Your task to perform on an android device: uninstall "Pinterest" Image 0: 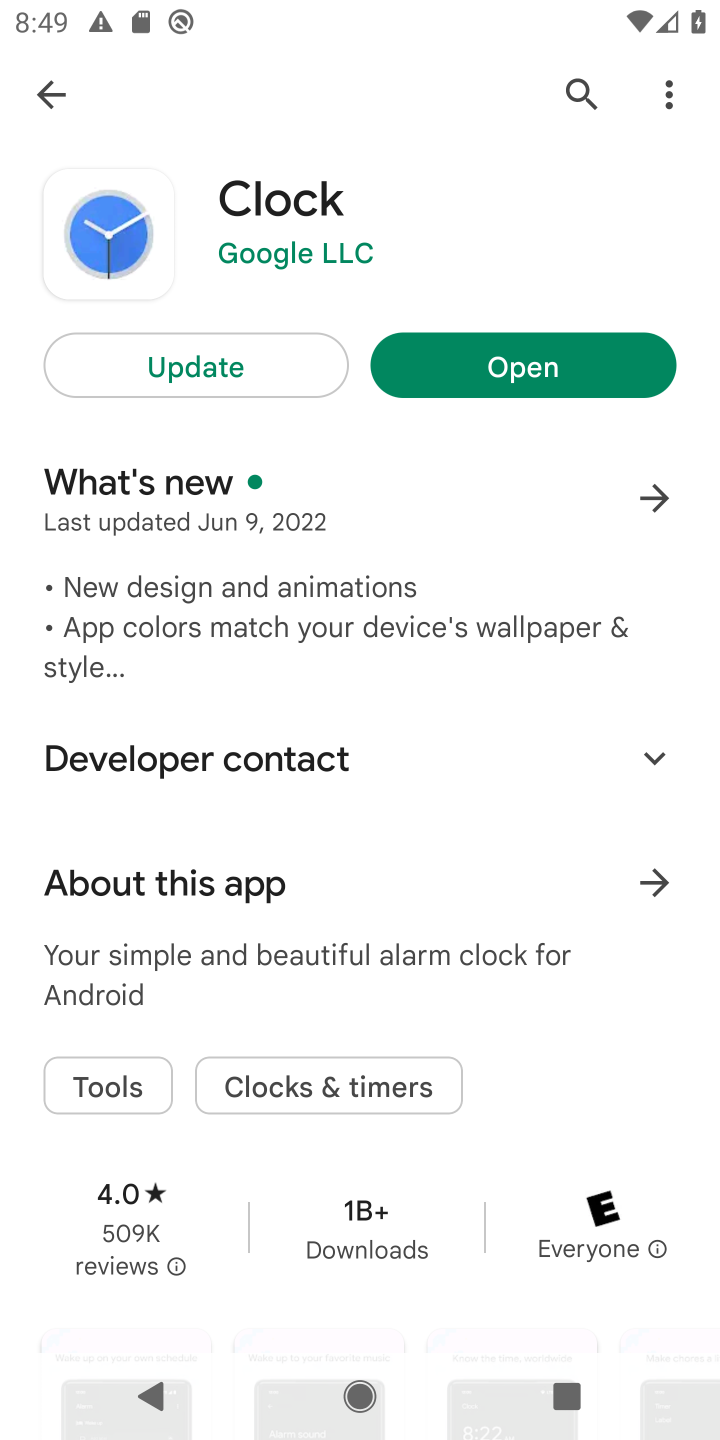
Step 0: click (50, 96)
Your task to perform on an android device: uninstall "Pinterest" Image 1: 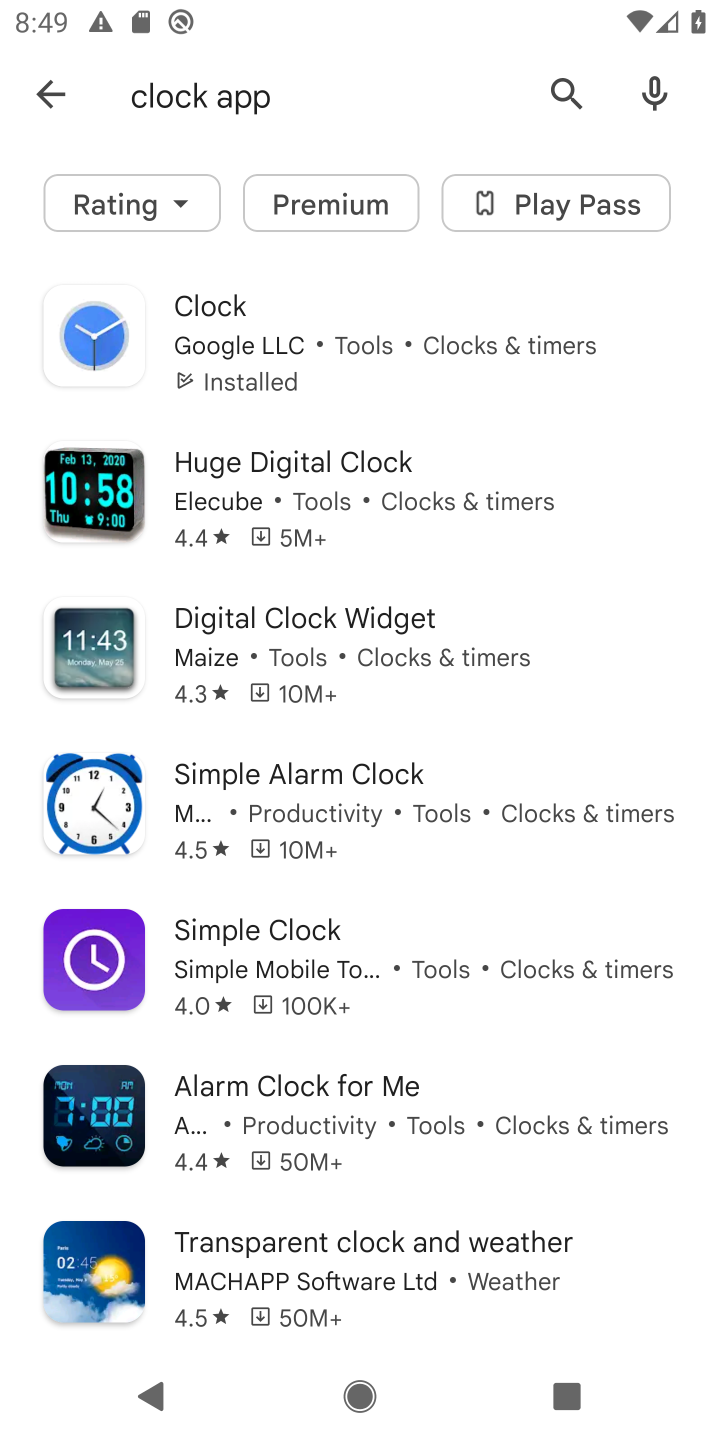
Step 1: click (51, 104)
Your task to perform on an android device: uninstall "Pinterest" Image 2: 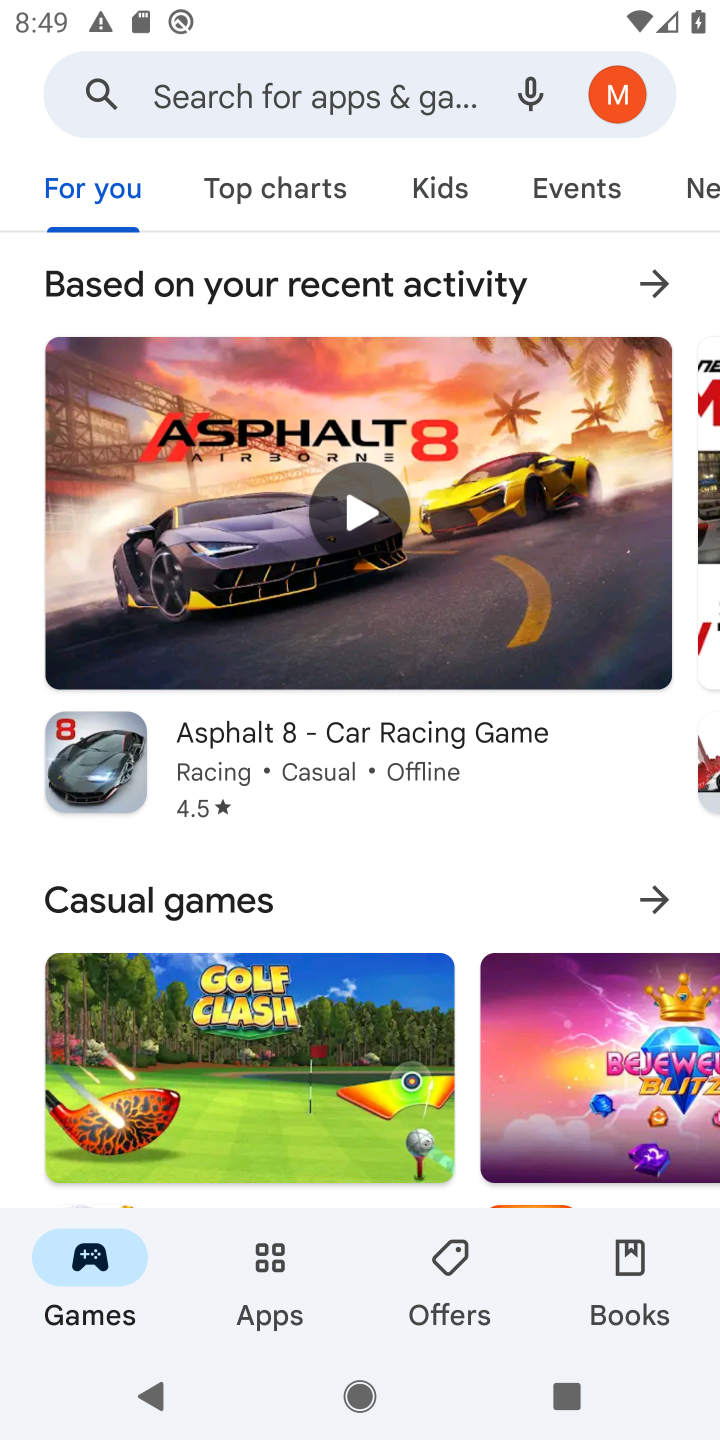
Step 2: click (319, 89)
Your task to perform on an android device: uninstall "Pinterest" Image 3: 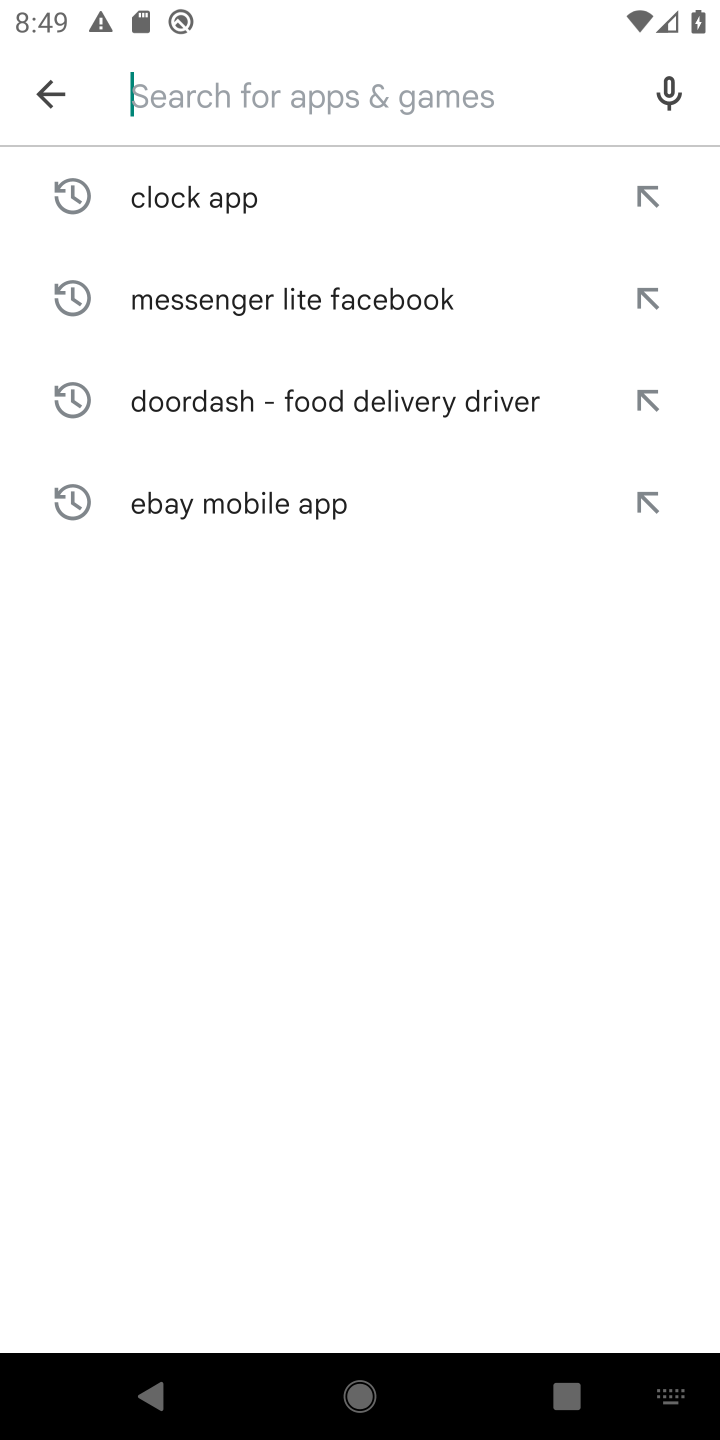
Step 3: click (400, 87)
Your task to perform on an android device: uninstall "Pinterest" Image 4: 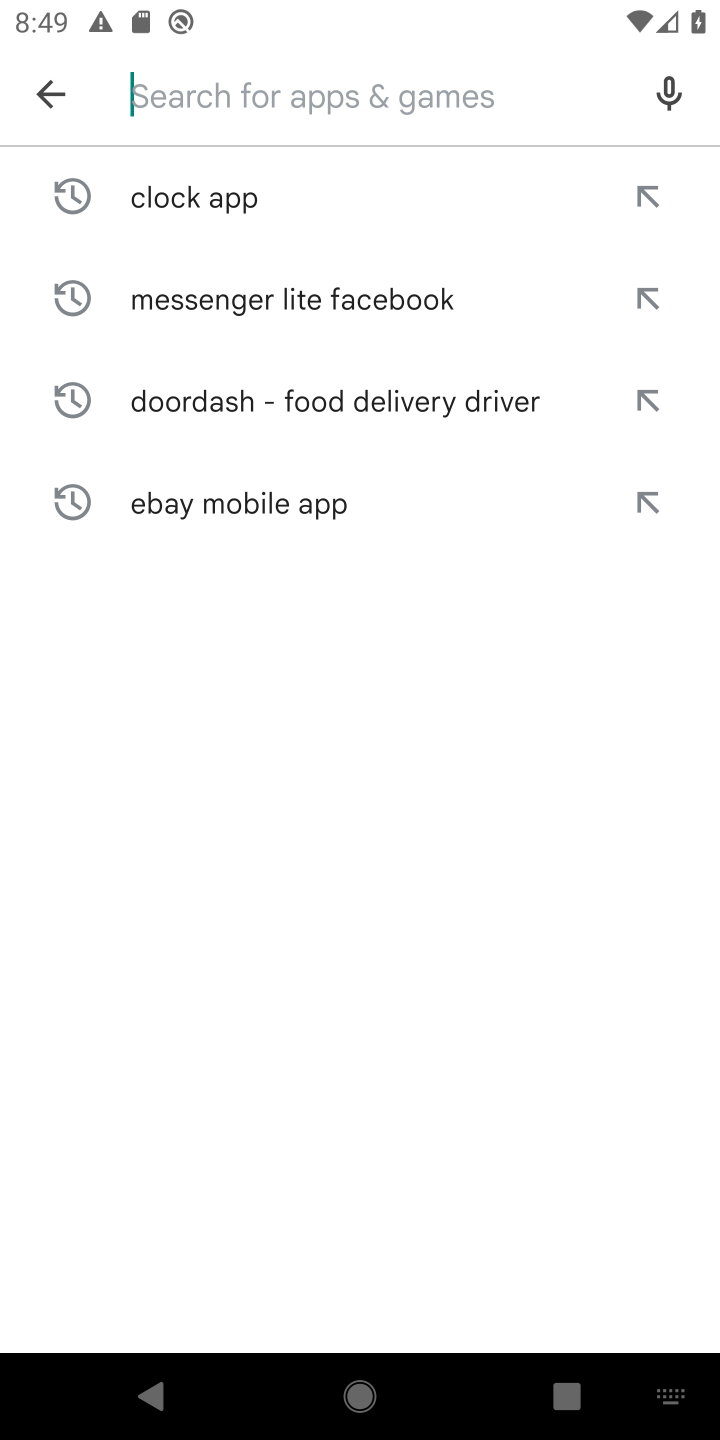
Step 4: type "Pinterest "
Your task to perform on an android device: uninstall "Pinterest" Image 5: 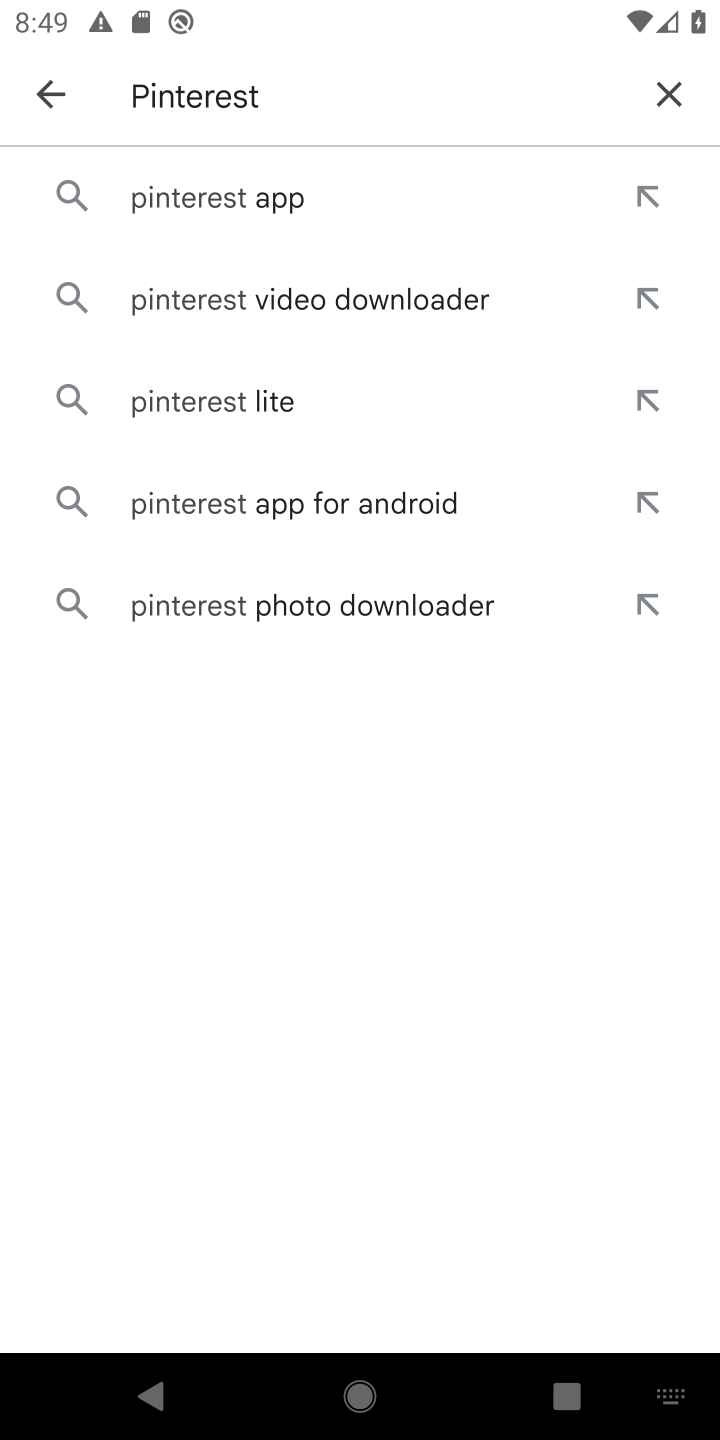
Step 5: click (169, 167)
Your task to perform on an android device: uninstall "Pinterest" Image 6: 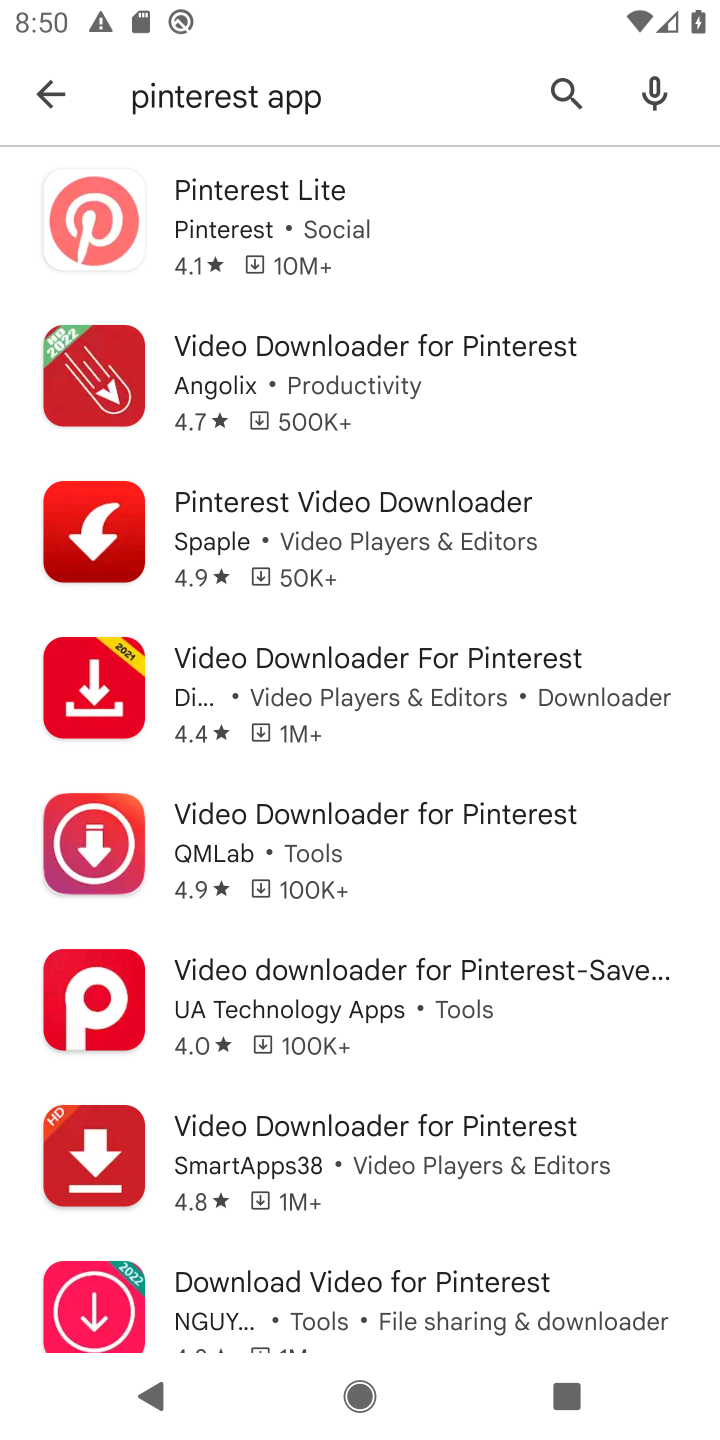
Step 6: click (289, 207)
Your task to perform on an android device: uninstall "Pinterest" Image 7: 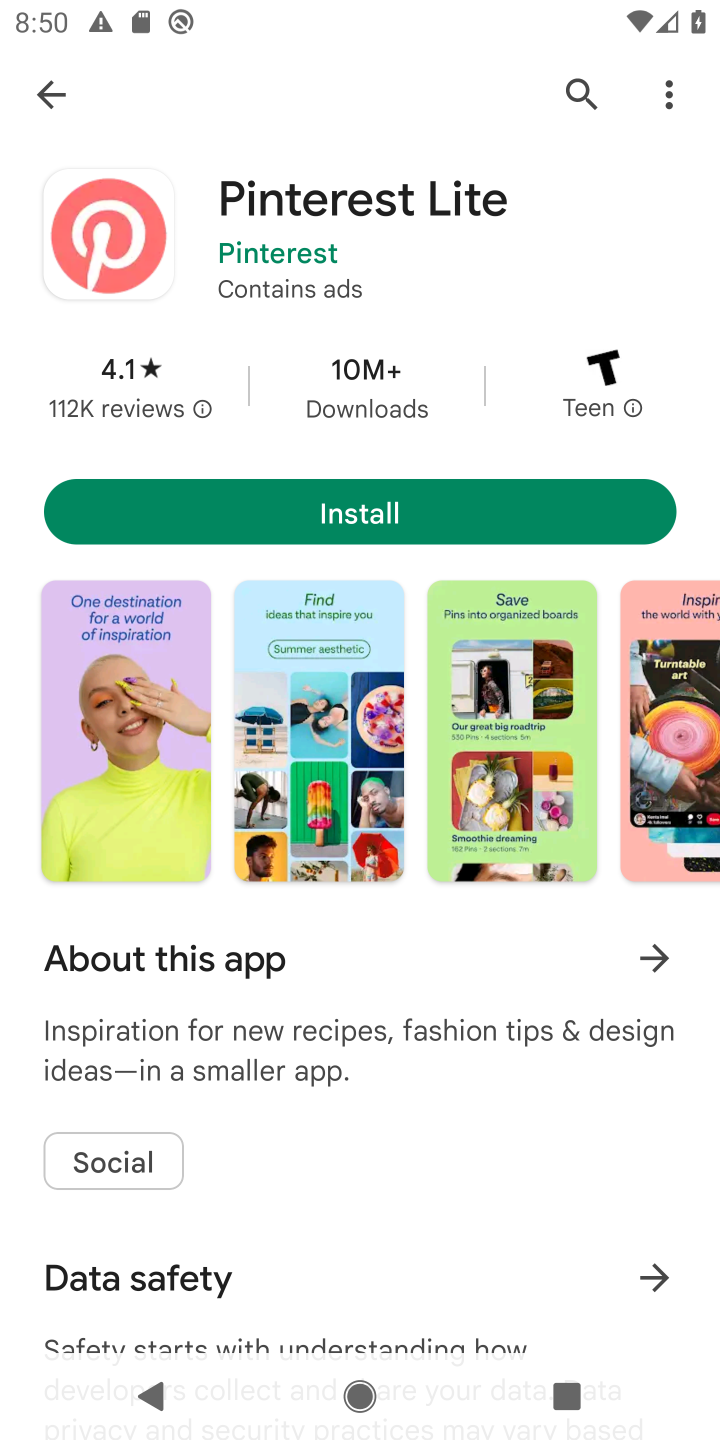
Step 7: task complete